Your task to perform on an android device: Open sound settings Image 0: 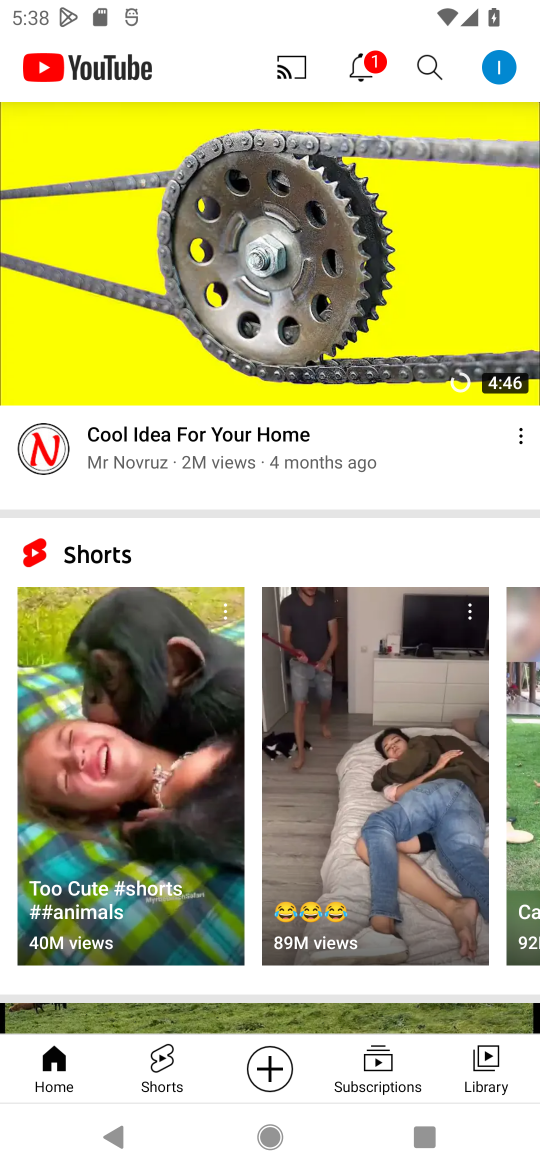
Step 0: press home button
Your task to perform on an android device: Open sound settings Image 1: 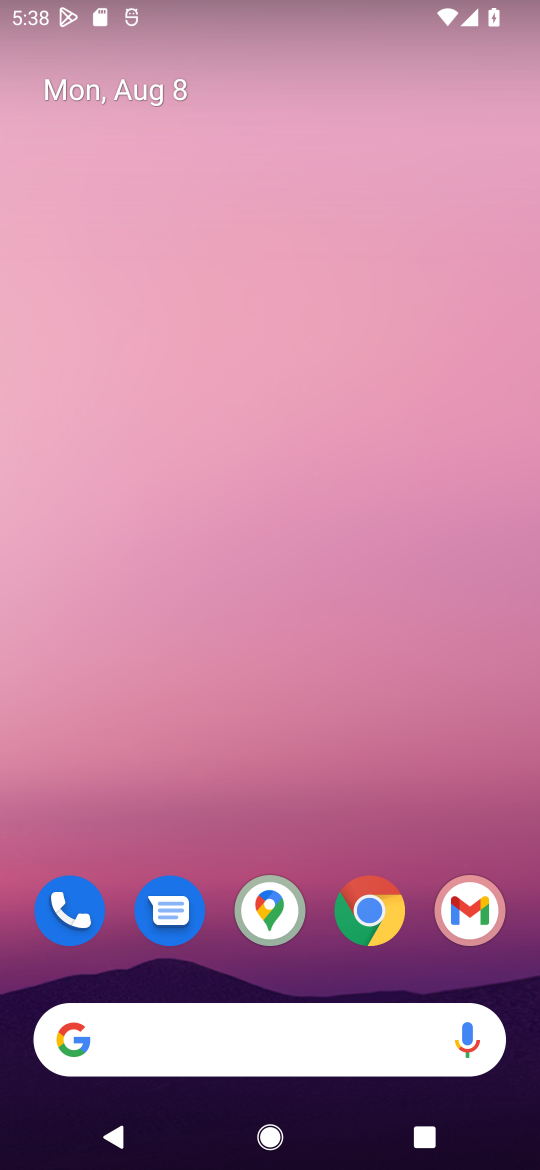
Step 1: drag from (243, 837) to (248, 191)
Your task to perform on an android device: Open sound settings Image 2: 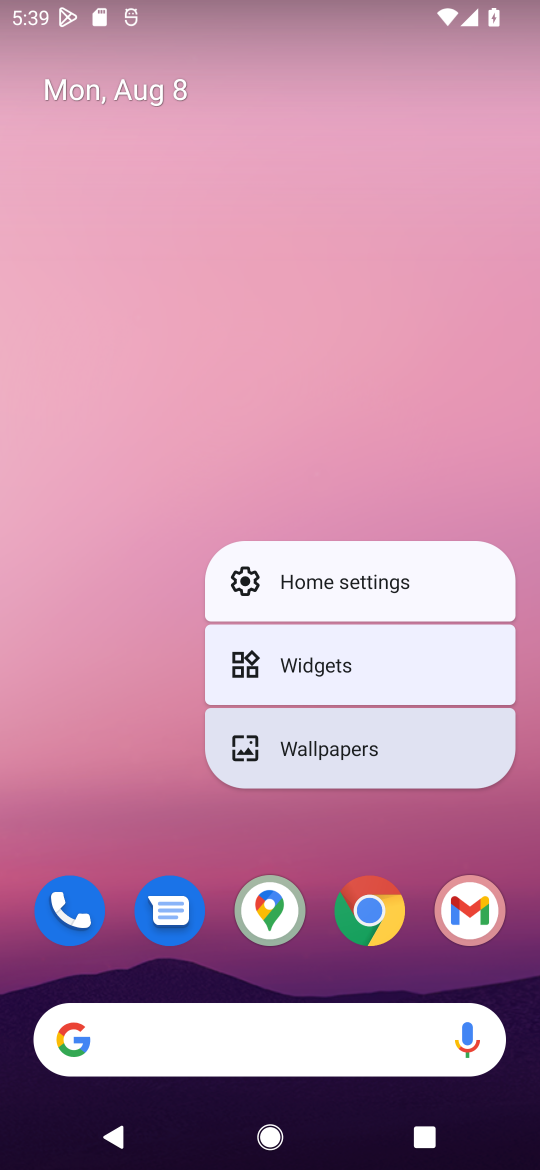
Step 2: click (79, 830)
Your task to perform on an android device: Open sound settings Image 3: 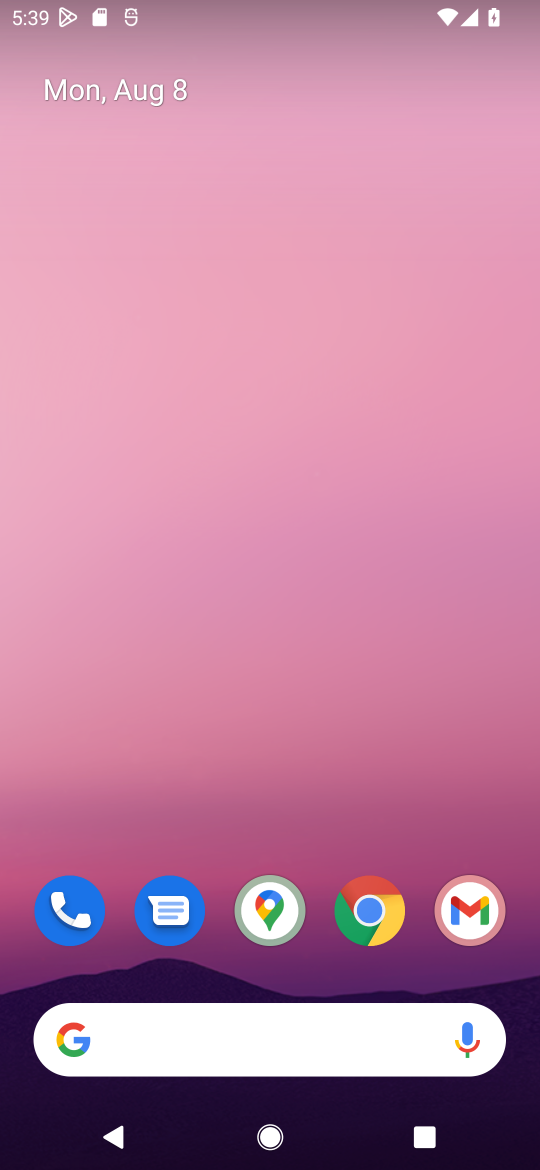
Step 3: drag from (79, 830) to (257, 155)
Your task to perform on an android device: Open sound settings Image 4: 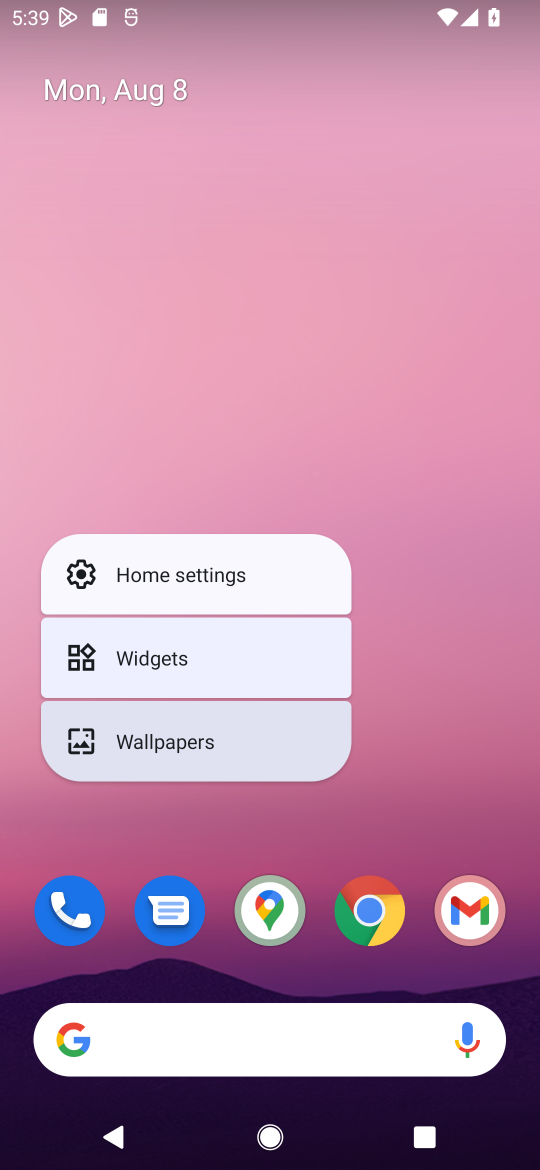
Step 4: click (416, 798)
Your task to perform on an android device: Open sound settings Image 5: 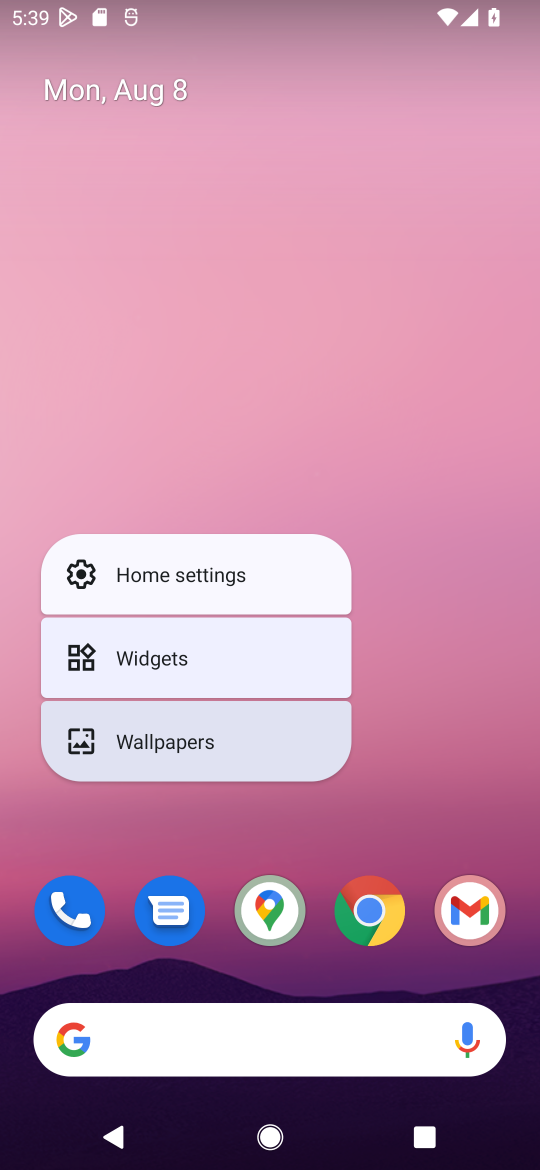
Step 5: drag from (416, 798) to (420, 46)
Your task to perform on an android device: Open sound settings Image 6: 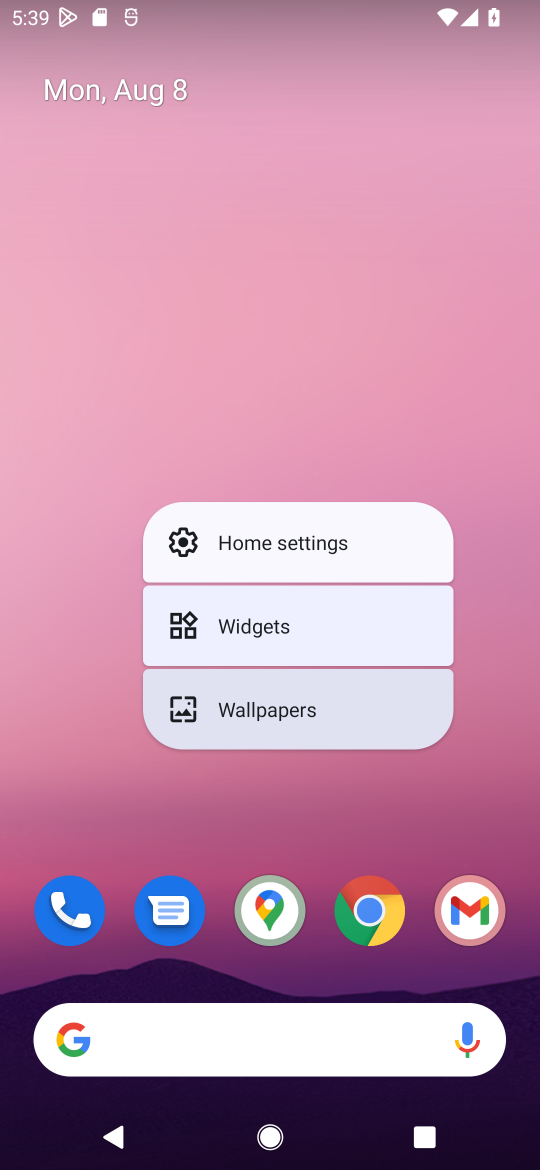
Step 6: click (109, 765)
Your task to perform on an android device: Open sound settings Image 7: 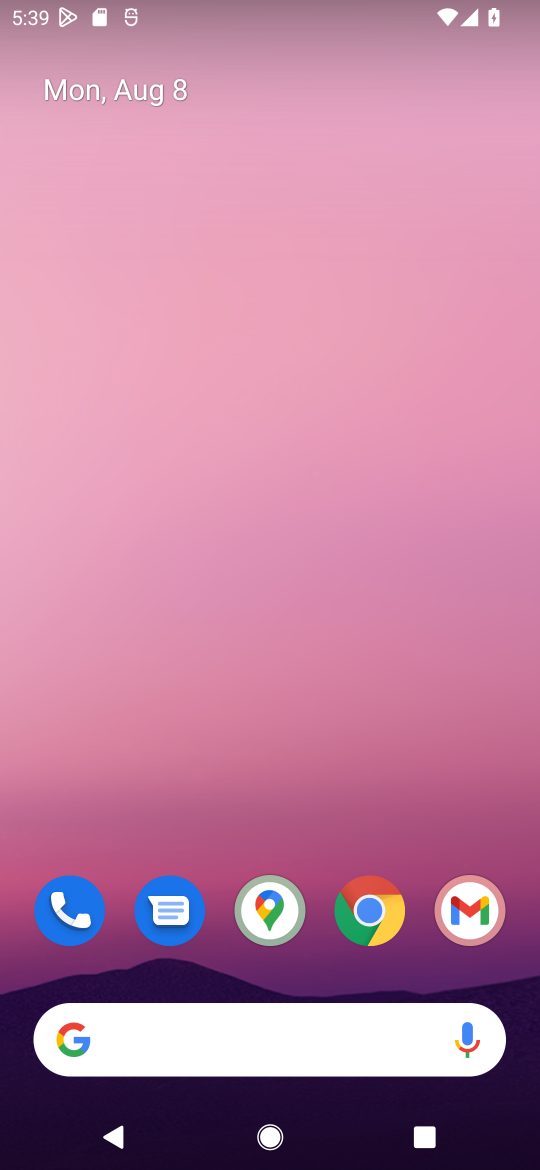
Step 7: drag from (76, 826) to (220, 176)
Your task to perform on an android device: Open sound settings Image 8: 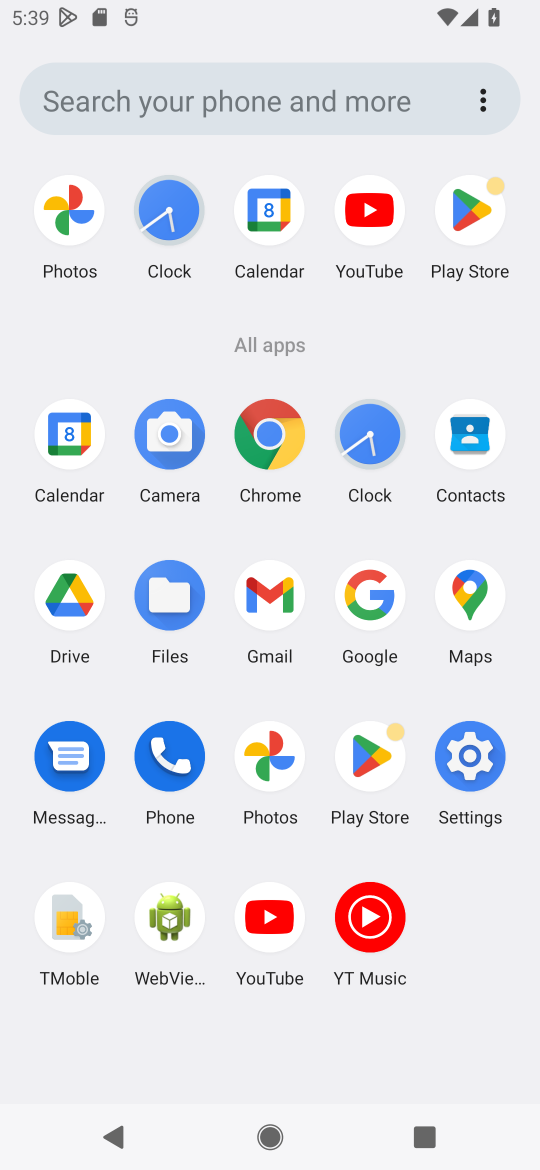
Step 8: click (482, 748)
Your task to perform on an android device: Open sound settings Image 9: 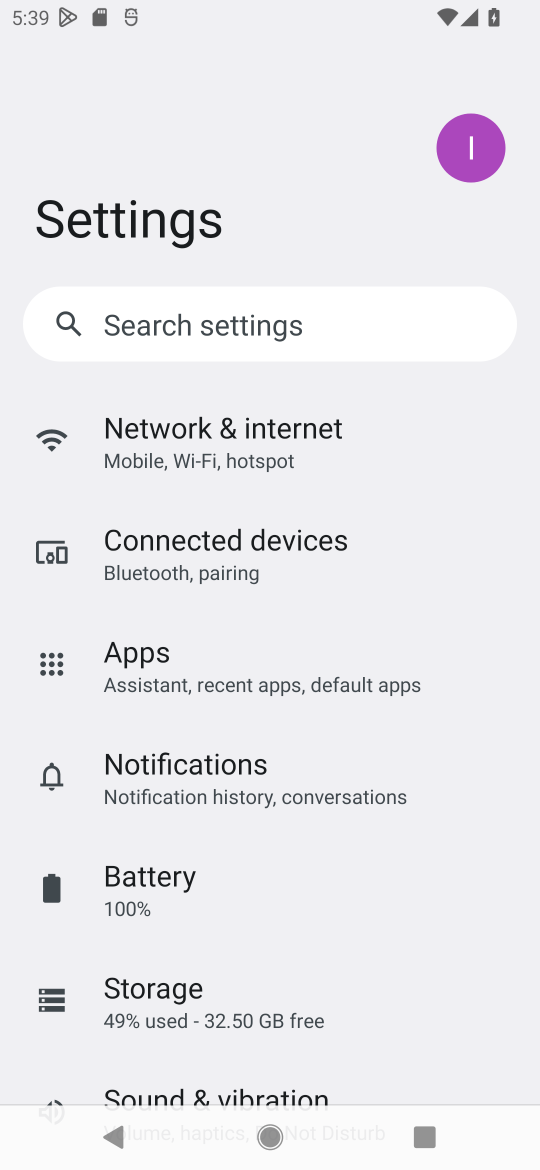
Step 9: click (203, 1087)
Your task to perform on an android device: Open sound settings Image 10: 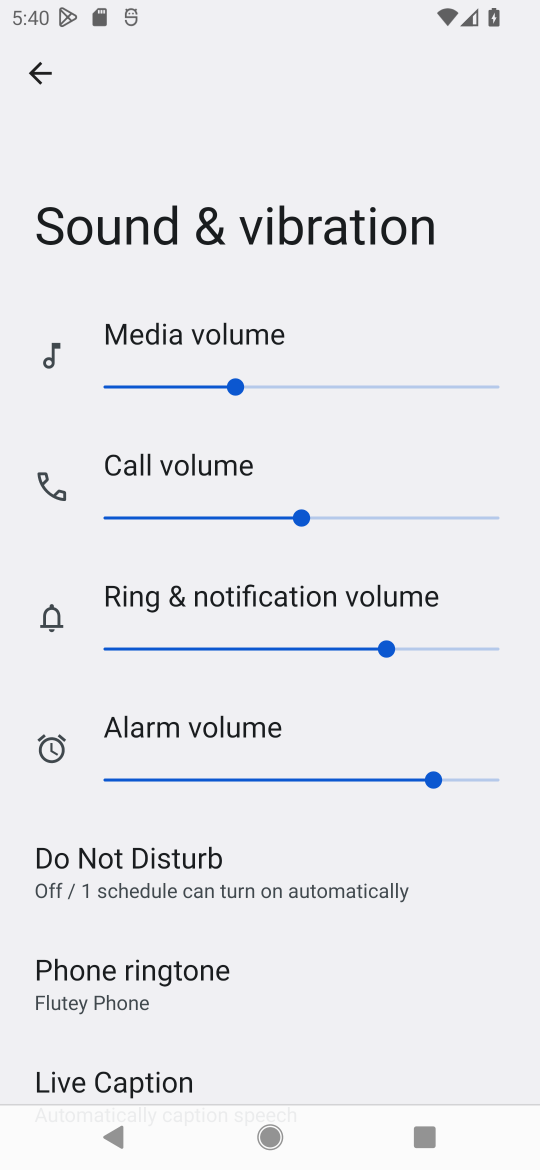
Step 10: task complete